Your task to perform on an android device: turn smart compose on in the gmail app Image 0: 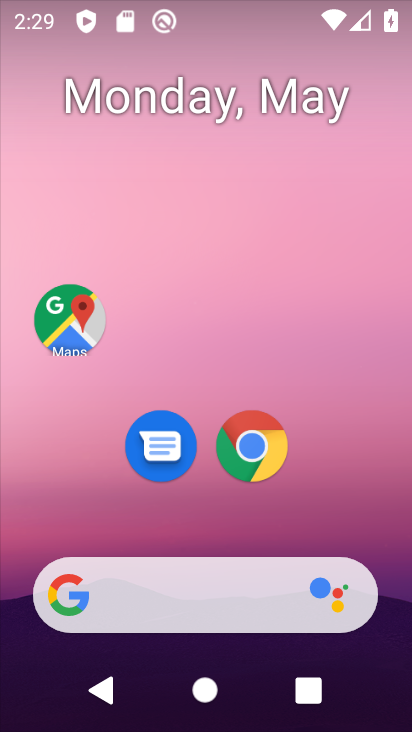
Step 0: drag from (166, 525) to (262, 118)
Your task to perform on an android device: turn smart compose on in the gmail app Image 1: 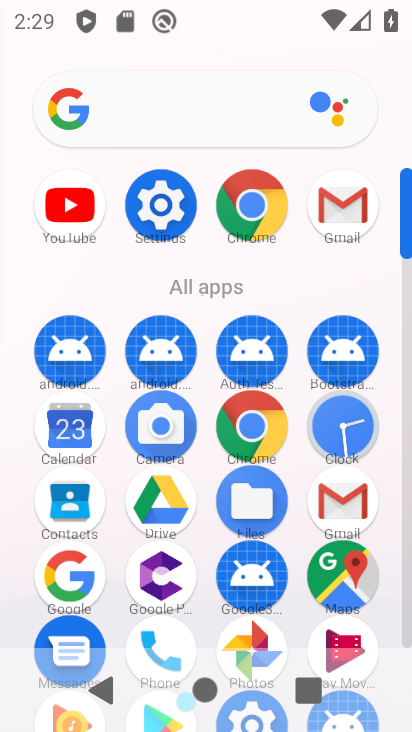
Step 1: click (356, 252)
Your task to perform on an android device: turn smart compose on in the gmail app Image 2: 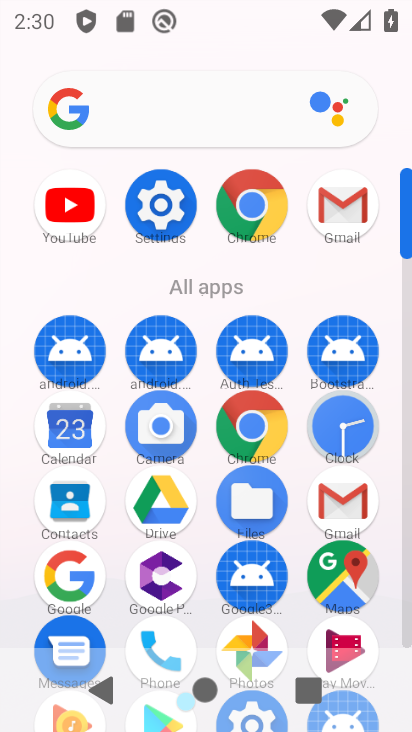
Step 2: click (343, 211)
Your task to perform on an android device: turn smart compose on in the gmail app Image 3: 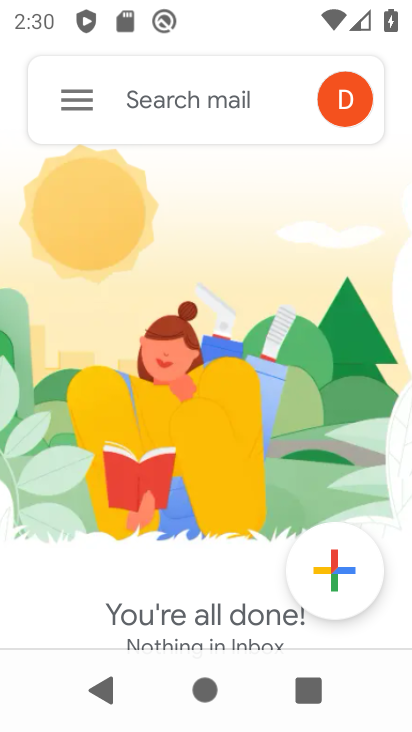
Step 3: click (71, 110)
Your task to perform on an android device: turn smart compose on in the gmail app Image 4: 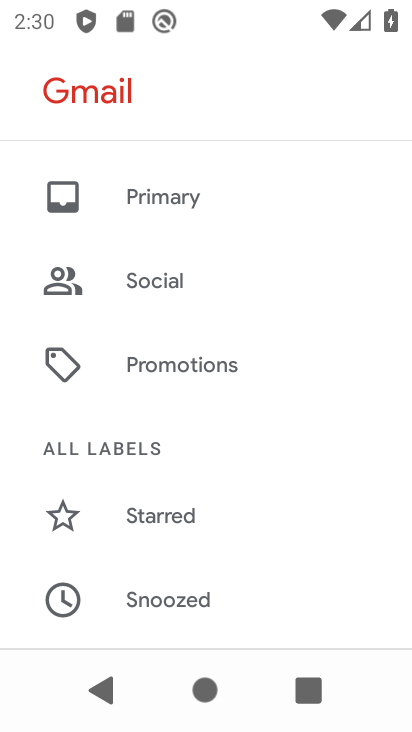
Step 4: drag from (94, 559) to (183, 233)
Your task to perform on an android device: turn smart compose on in the gmail app Image 5: 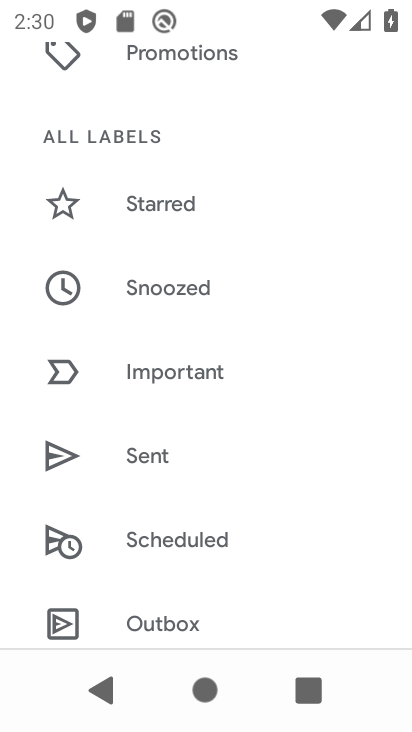
Step 5: drag from (188, 556) to (257, 190)
Your task to perform on an android device: turn smart compose on in the gmail app Image 6: 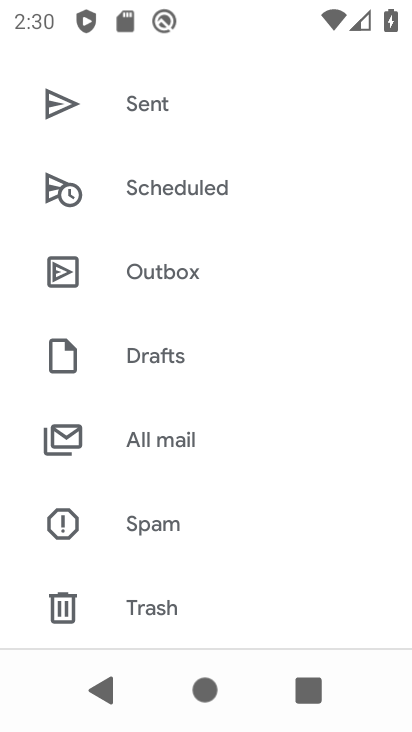
Step 6: drag from (205, 559) to (292, 255)
Your task to perform on an android device: turn smart compose on in the gmail app Image 7: 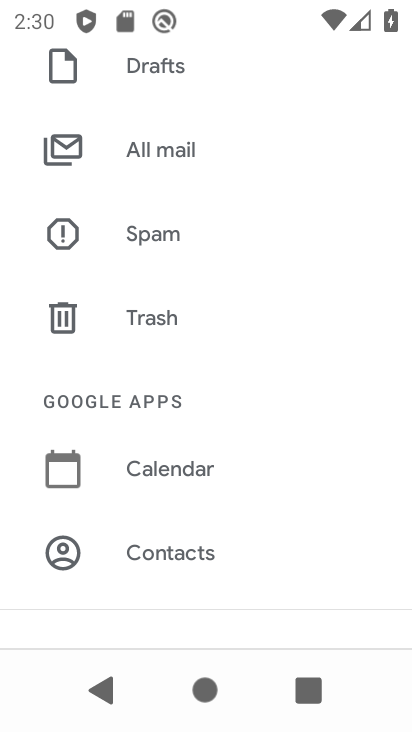
Step 7: drag from (102, 593) to (194, 242)
Your task to perform on an android device: turn smart compose on in the gmail app Image 8: 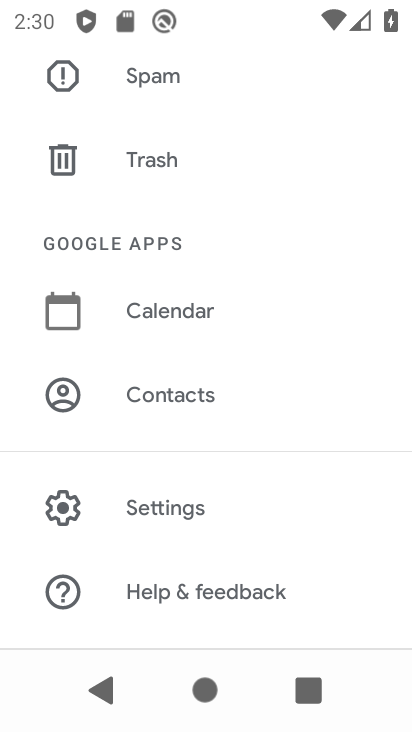
Step 8: click (176, 522)
Your task to perform on an android device: turn smart compose on in the gmail app Image 9: 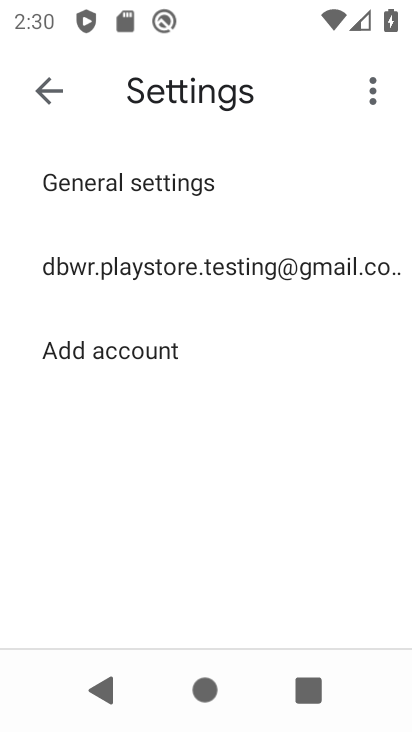
Step 9: click (327, 254)
Your task to perform on an android device: turn smart compose on in the gmail app Image 10: 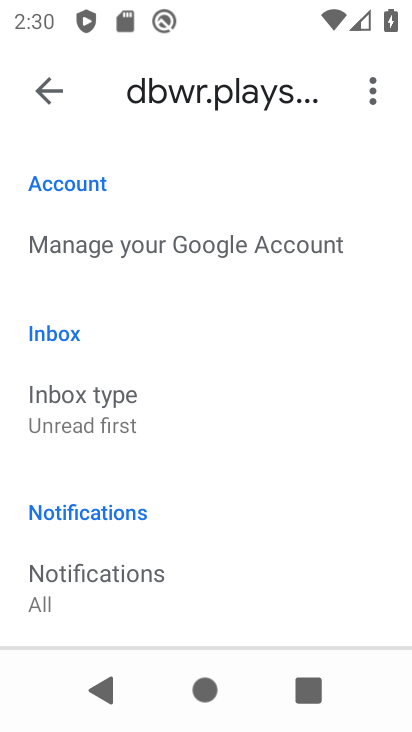
Step 10: task complete